Your task to perform on an android device: turn on notifications settings in the gmail app Image 0: 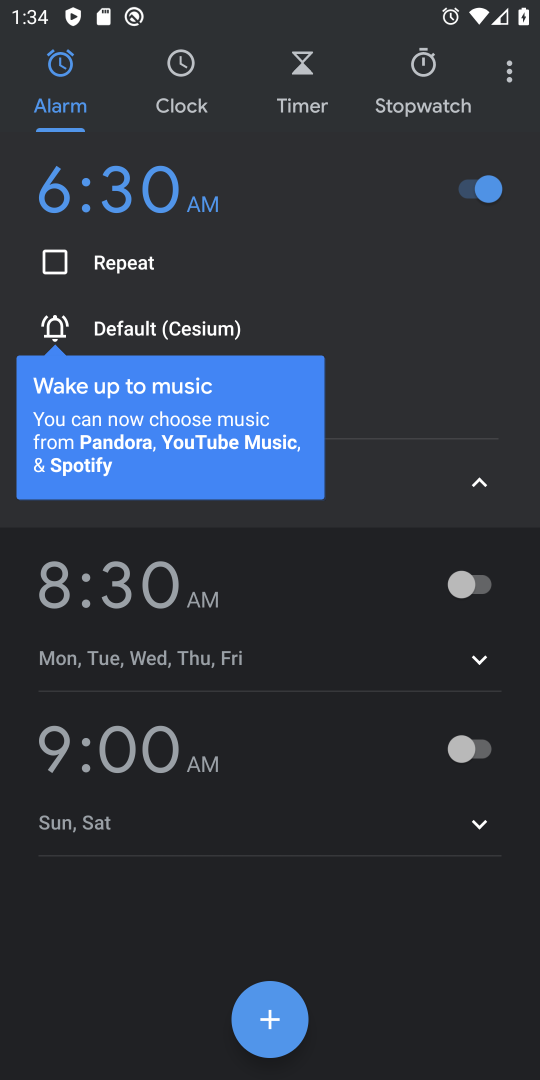
Step 0: press home button
Your task to perform on an android device: turn on notifications settings in the gmail app Image 1: 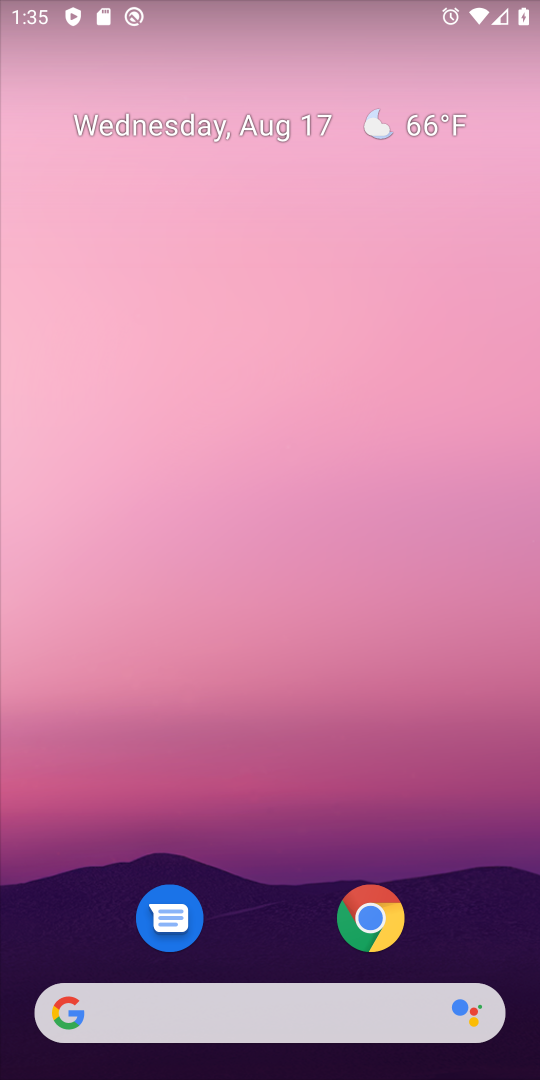
Step 1: drag from (260, 1030) to (307, 651)
Your task to perform on an android device: turn on notifications settings in the gmail app Image 2: 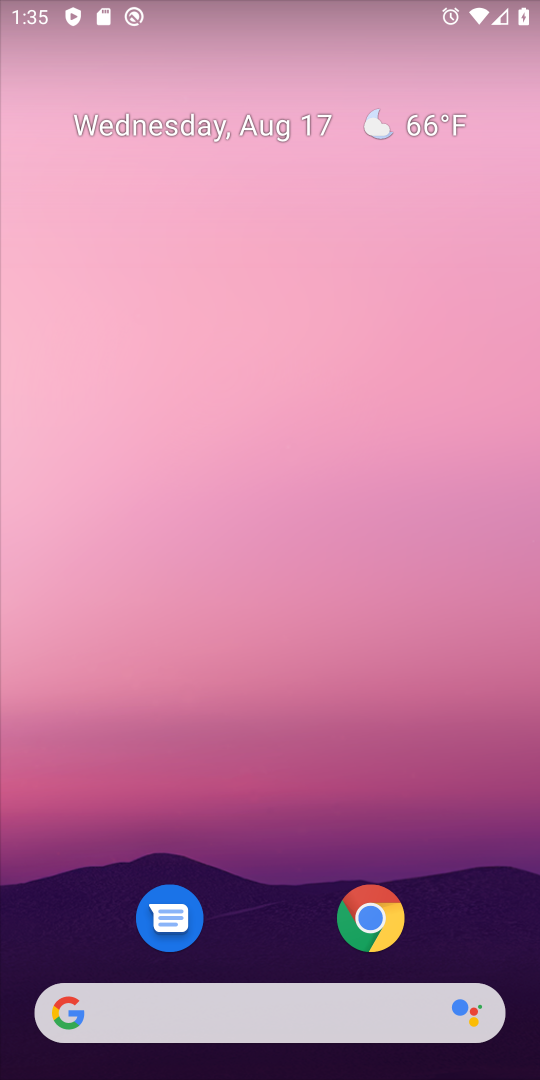
Step 2: drag from (275, 982) to (40, 35)
Your task to perform on an android device: turn on notifications settings in the gmail app Image 3: 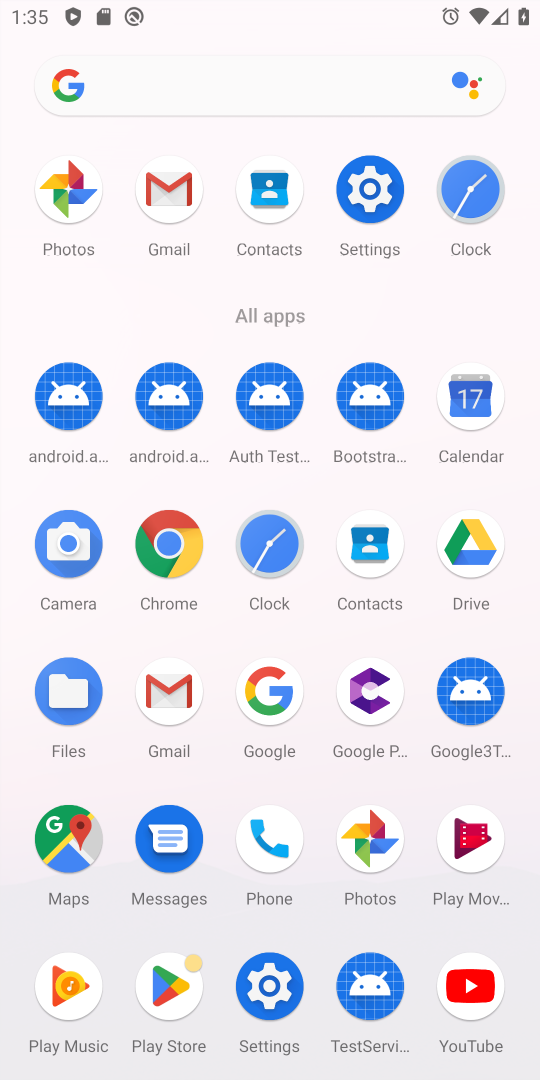
Step 3: click (150, 695)
Your task to perform on an android device: turn on notifications settings in the gmail app Image 4: 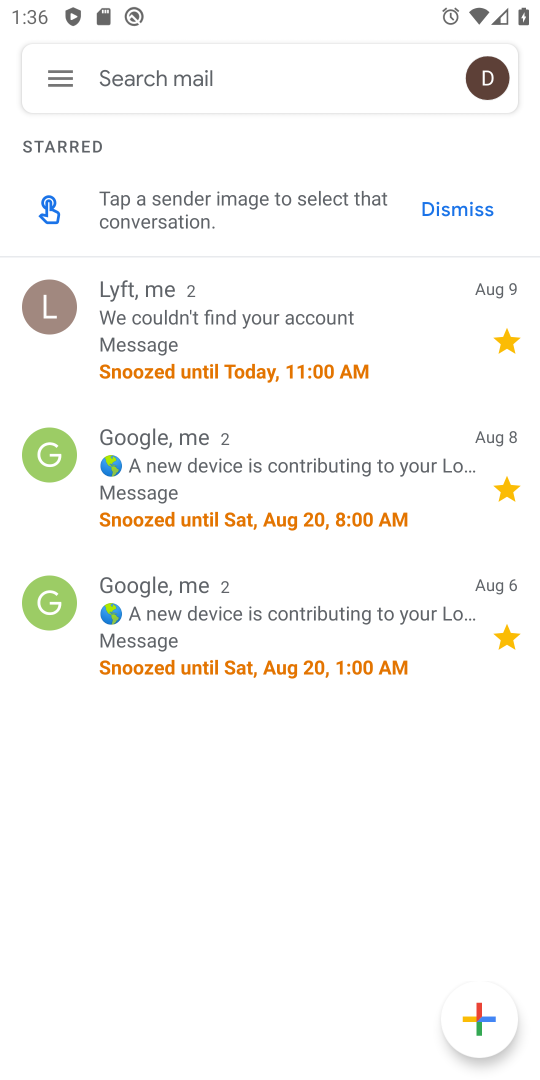
Step 4: click (70, 93)
Your task to perform on an android device: turn on notifications settings in the gmail app Image 5: 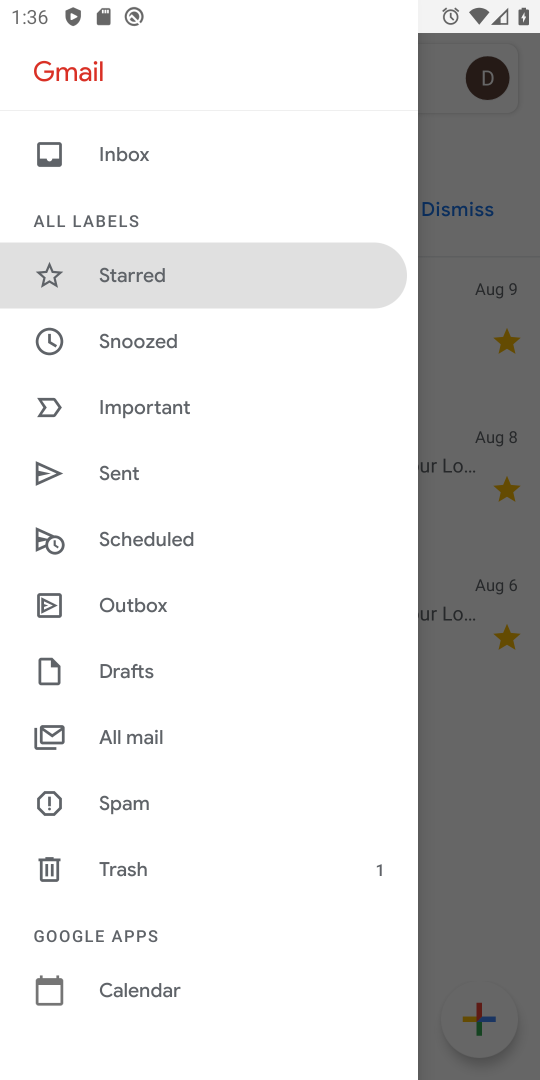
Step 5: drag from (202, 1010) to (244, 0)
Your task to perform on an android device: turn on notifications settings in the gmail app Image 6: 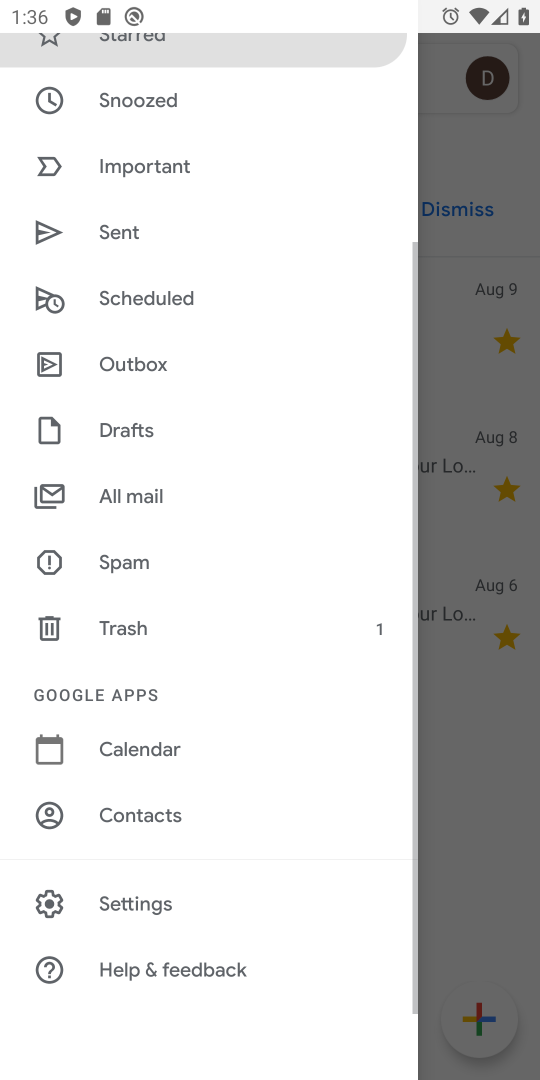
Step 6: click (108, 897)
Your task to perform on an android device: turn on notifications settings in the gmail app Image 7: 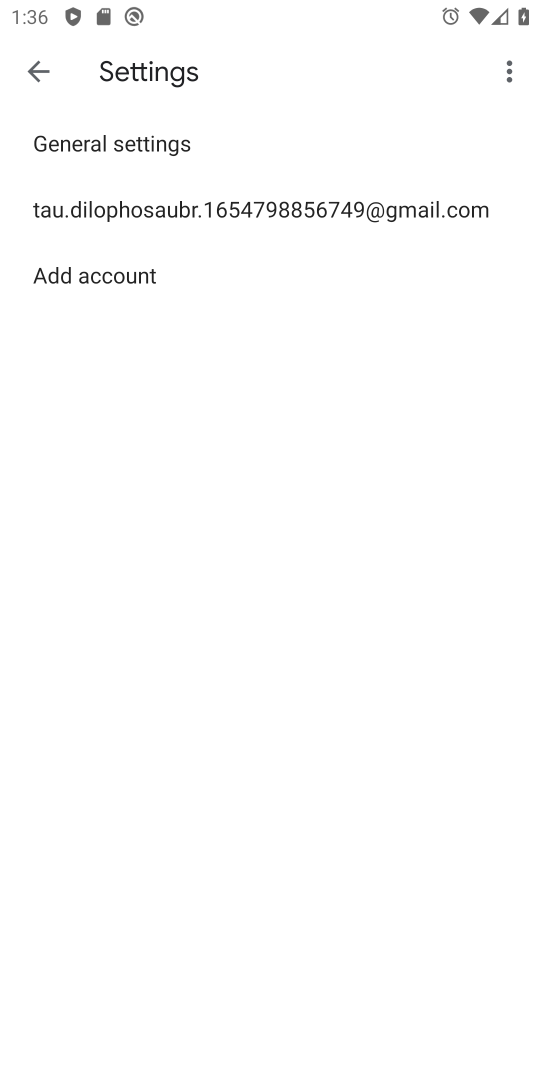
Step 7: click (239, 218)
Your task to perform on an android device: turn on notifications settings in the gmail app Image 8: 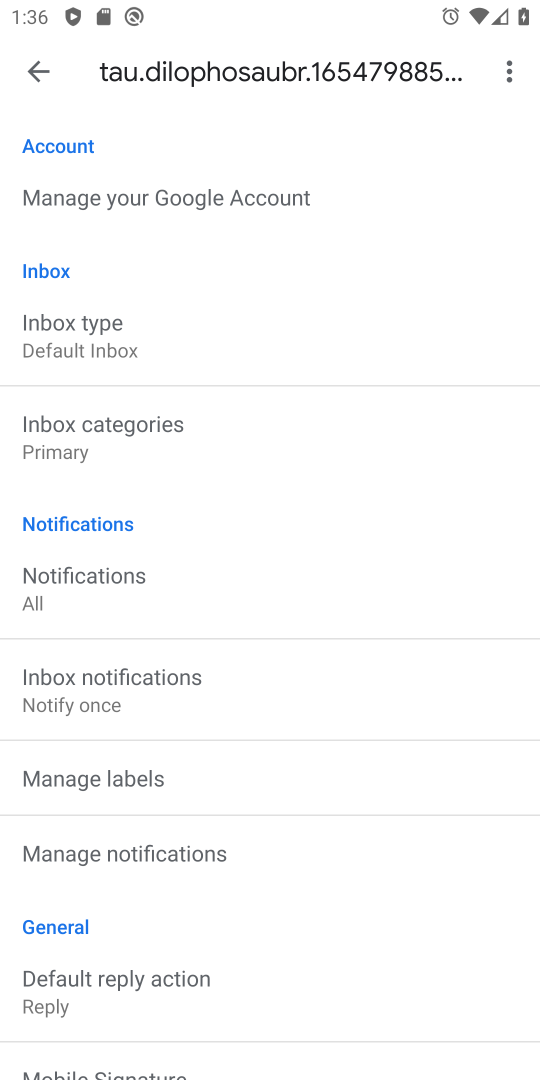
Step 8: click (178, 851)
Your task to perform on an android device: turn on notifications settings in the gmail app Image 9: 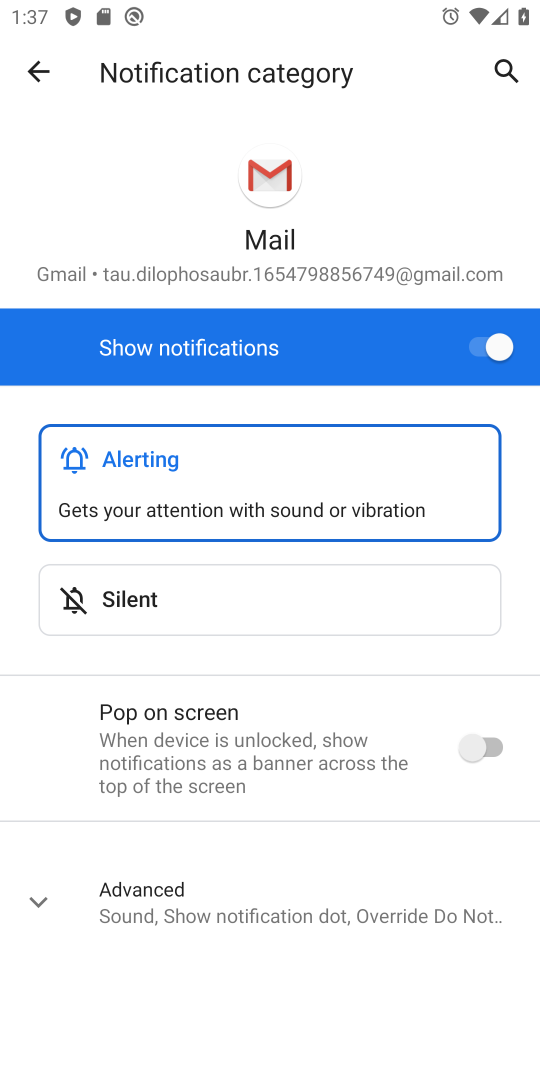
Step 9: task complete